Your task to perform on an android device: Open my contact list Image 0: 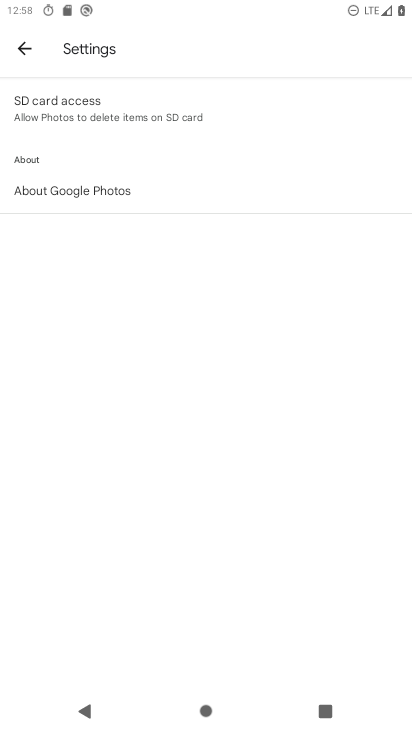
Step 0: press home button
Your task to perform on an android device: Open my contact list Image 1: 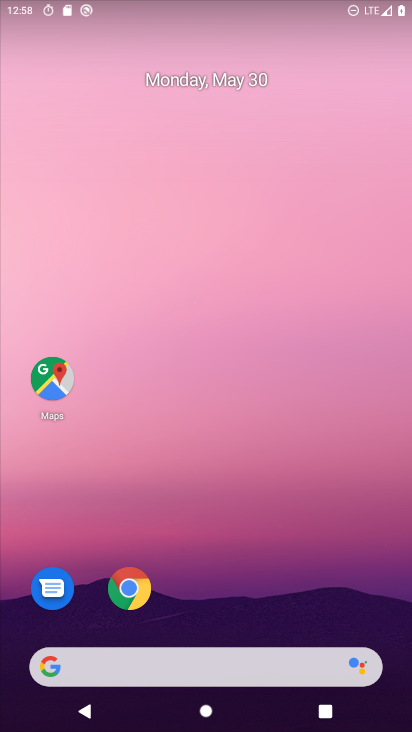
Step 1: drag from (295, 577) to (301, 145)
Your task to perform on an android device: Open my contact list Image 2: 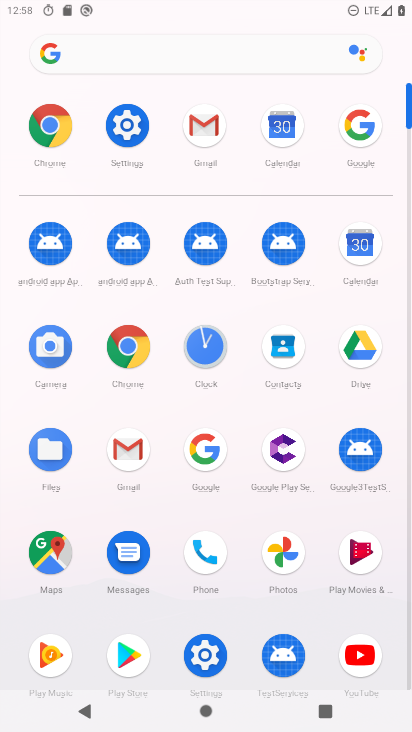
Step 2: click (289, 367)
Your task to perform on an android device: Open my contact list Image 3: 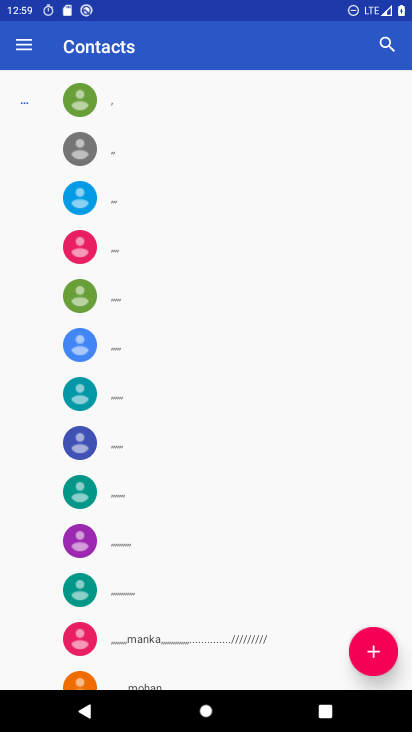
Step 3: task complete